Your task to perform on an android device: Open Maps and search for coffee Image 0: 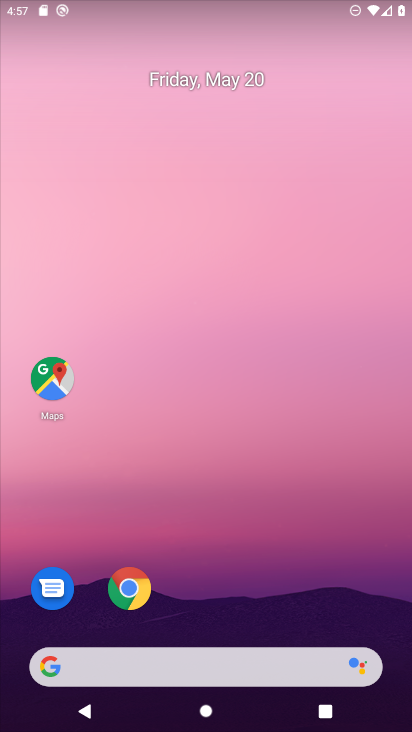
Step 0: click (232, 210)
Your task to perform on an android device: Open Maps and search for coffee Image 1: 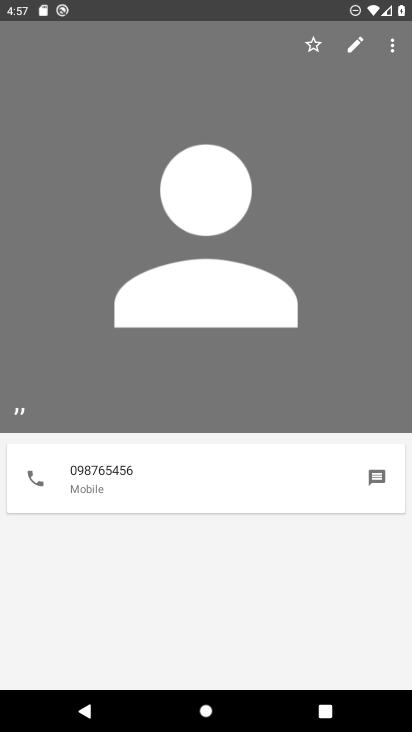
Step 1: press home button
Your task to perform on an android device: Open Maps and search for coffee Image 2: 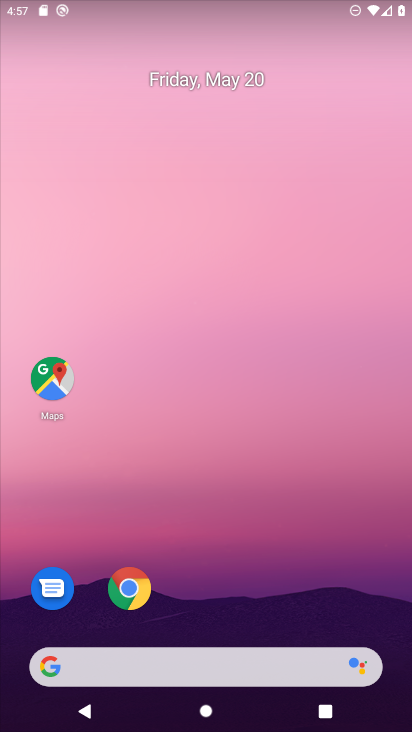
Step 2: click (53, 379)
Your task to perform on an android device: Open Maps and search for coffee Image 3: 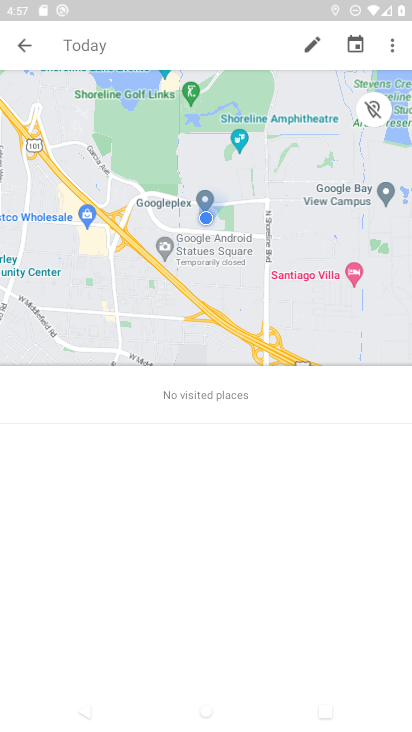
Step 3: click (28, 50)
Your task to perform on an android device: Open Maps and search for coffee Image 4: 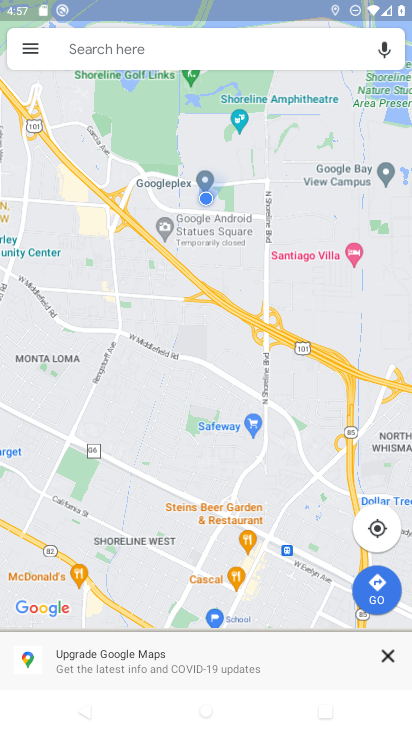
Step 4: click (122, 36)
Your task to perform on an android device: Open Maps and search for coffee Image 5: 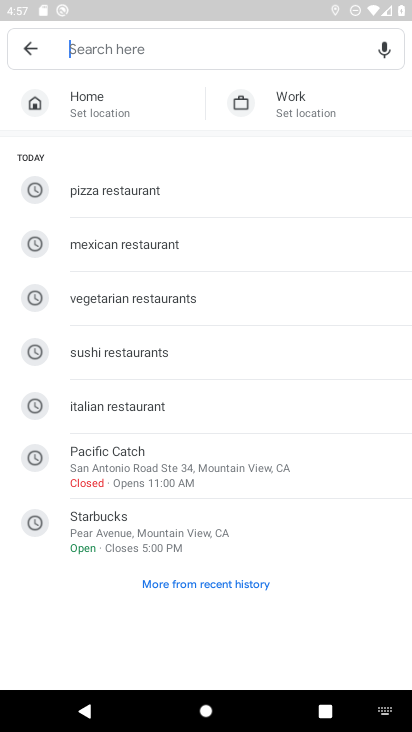
Step 5: click (186, 593)
Your task to perform on an android device: Open Maps and search for coffee Image 6: 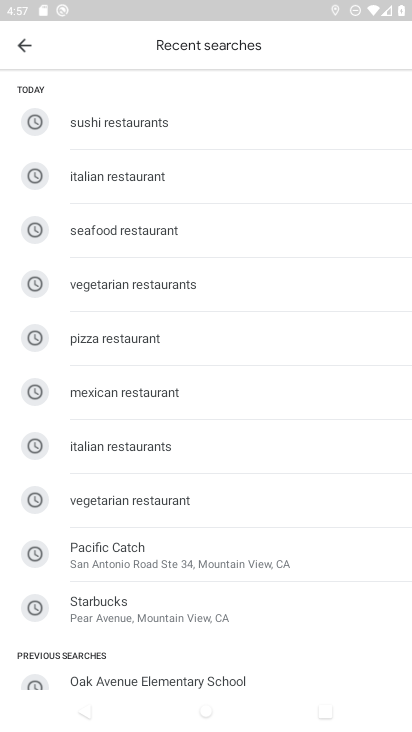
Step 6: click (208, 352)
Your task to perform on an android device: Open Maps and search for coffee Image 7: 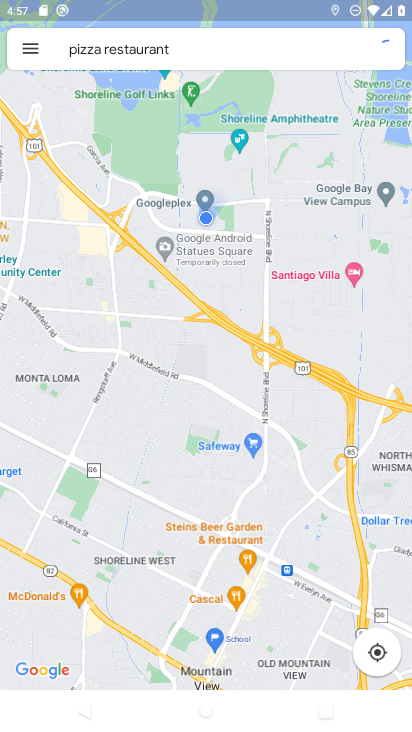
Step 7: click (190, 44)
Your task to perform on an android device: Open Maps and search for coffee Image 8: 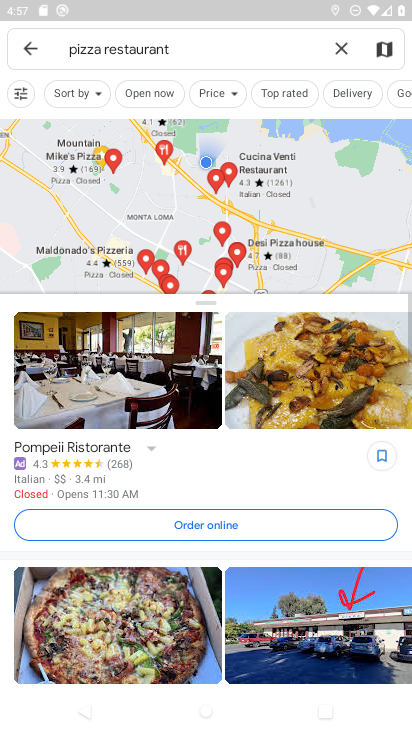
Step 8: click (334, 43)
Your task to perform on an android device: Open Maps and search for coffee Image 9: 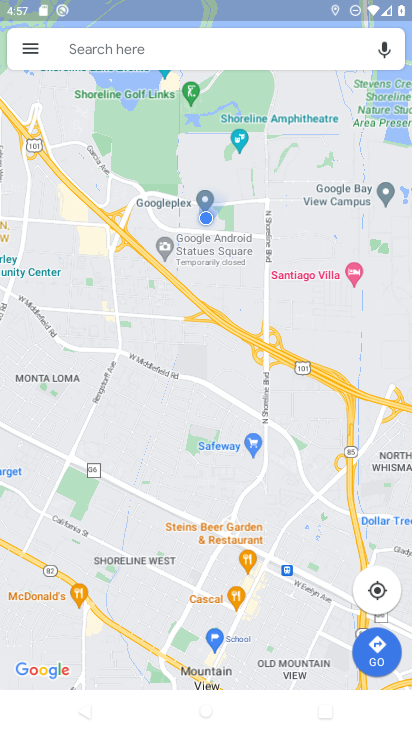
Step 9: click (179, 68)
Your task to perform on an android device: Open Maps and search for coffee Image 10: 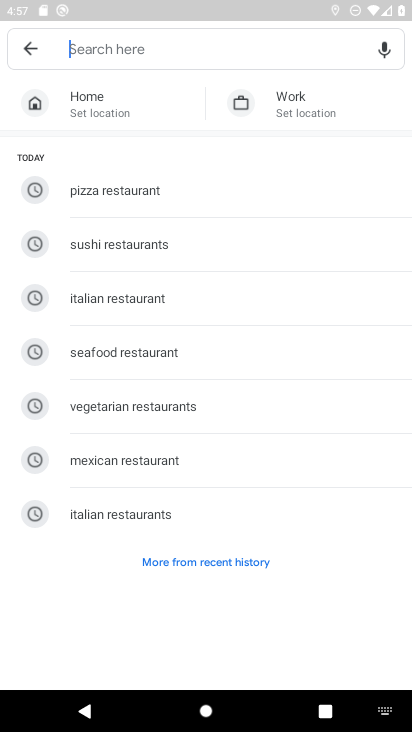
Step 10: type "coffee"
Your task to perform on an android device: Open Maps and search for coffee Image 11: 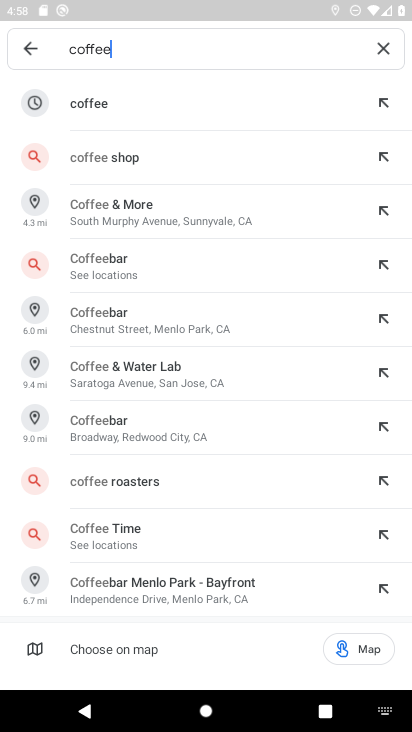
Step 11: click (132, 115)
Your task to perform on an android device: Open Maps and search for coffee Image 12: 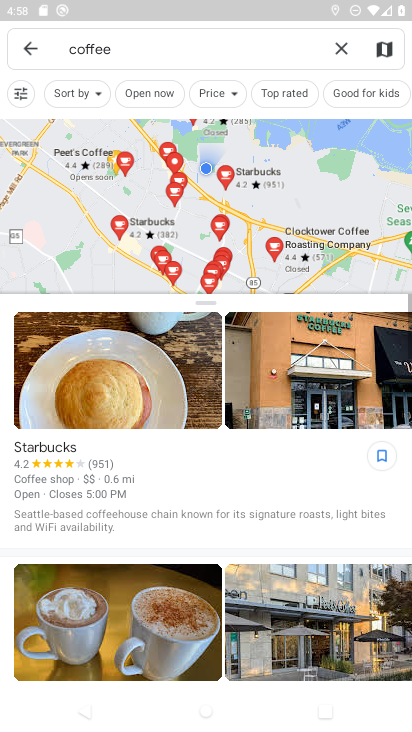
Step 12: task complete